Your task to perform on an android device: turn off notifications settings in the gmail app Image 0: 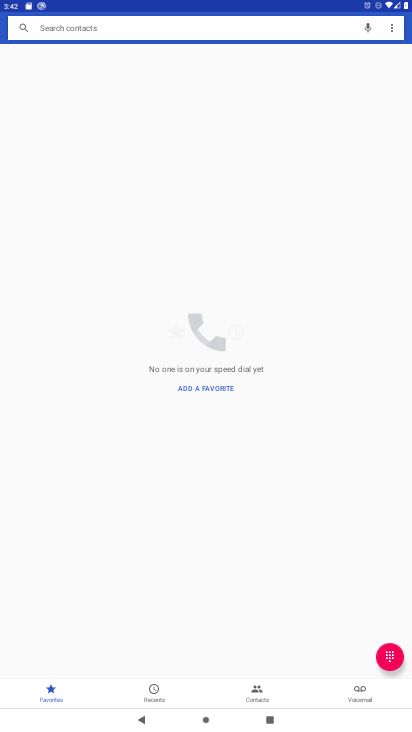
Step 0: press home button
Your task to perform on an android device: turn off notifications settings in the gmail app Image 1: 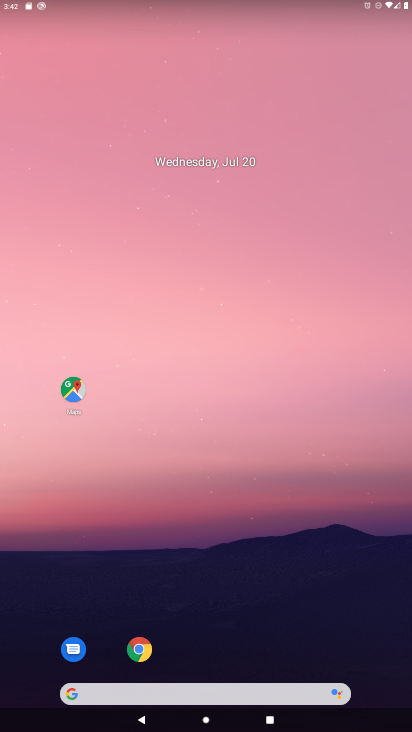
Step 1: drag from (208, 691) to (297, 147)
Your task to perform on an android device: turn off notifications settings in the gmail app Image 2: 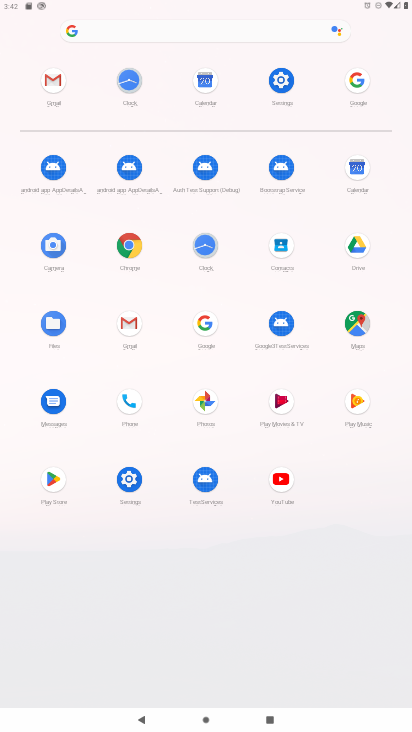
Step 2: click (129, 322)
Your task to perform on an android device: turn off notifications settings in the gmail app Image 3: 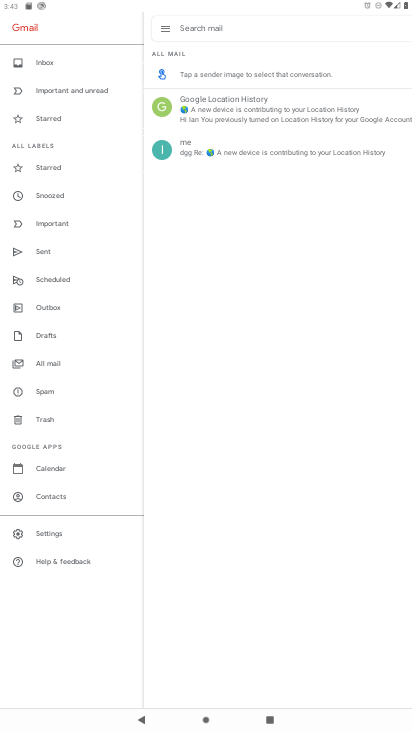
Step 3: click (49, 532)
Your task to perform on an android device: turn off notifications settings in the gmail app Image 4: 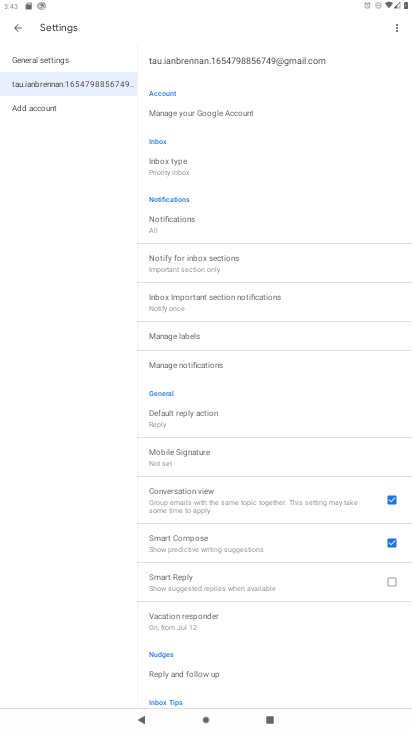
Step 4: click (189, 362)
Your task to perform on an android device: turn off notifications settings in the gmail app Image 5: 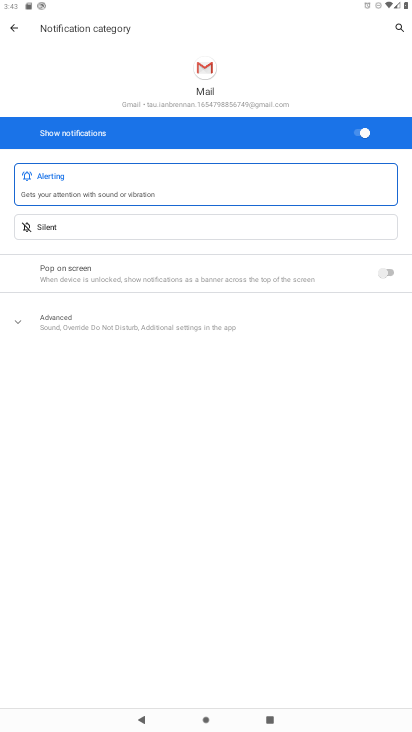
Step 5: click (364, 136)
Your task to perform on an android device: turn off notifications settings in the gmail app Image 6: 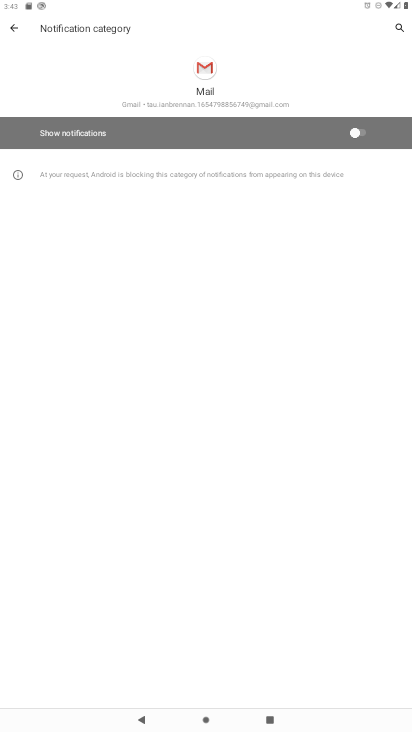
Step 6: task complete